Your task to perform on an android device: open app "Google Chat" Image 0: 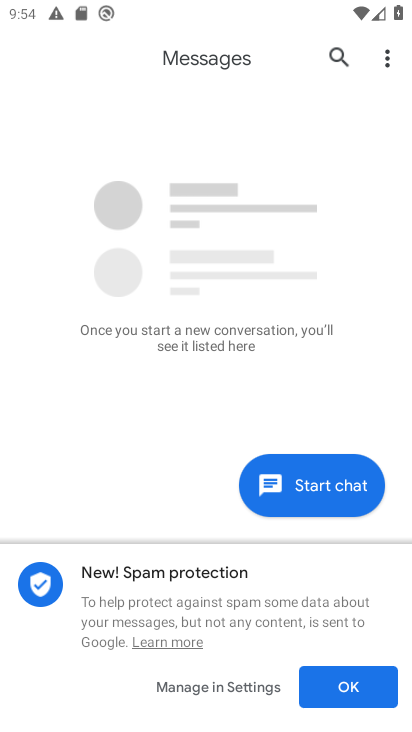
Step 0: press back button
Your task to perform on an android device: open app "Google Chat" Image 1: 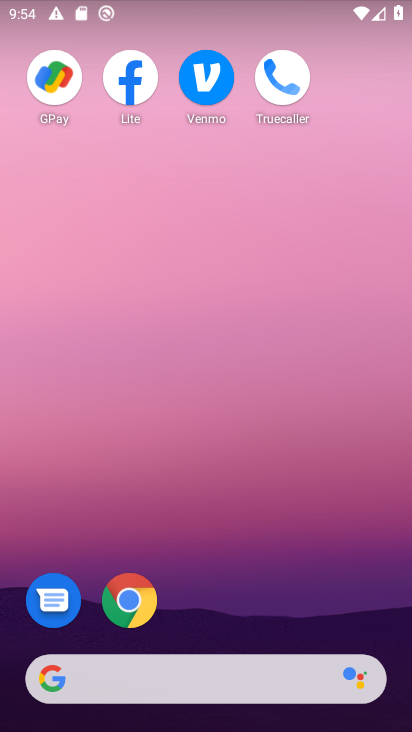
Step 1: drag from (236, 509) to (238, 135)
Your task to perform on an android device: open app "Google Chat" Image 2: 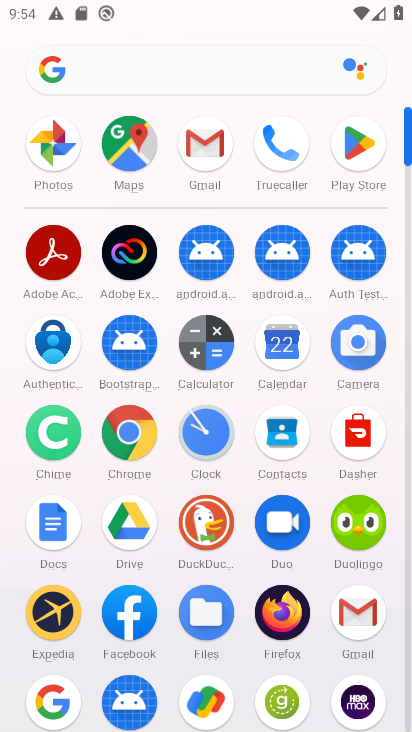
Step 2: click (369, 139)
Your task to perform on an android device: open app "Google Chat" Image 3: 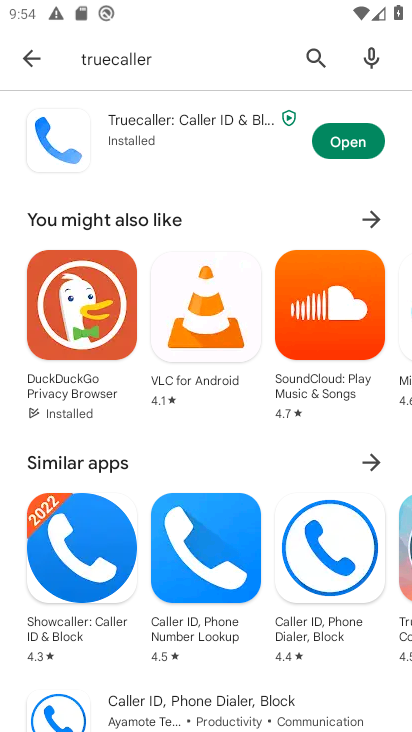
Step 3: click (320, 52)
Your task to perform on an android device: open app "Google Chat" Image 4: 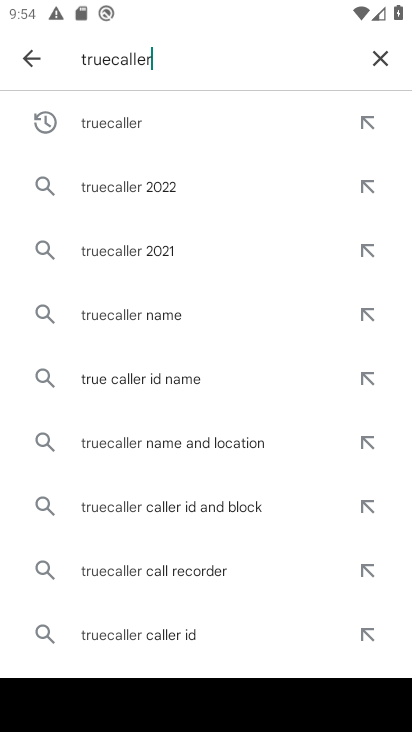
Step 4: click (368, 58)
Your task to perform on an android device: open app "Google Chat" Image 5: 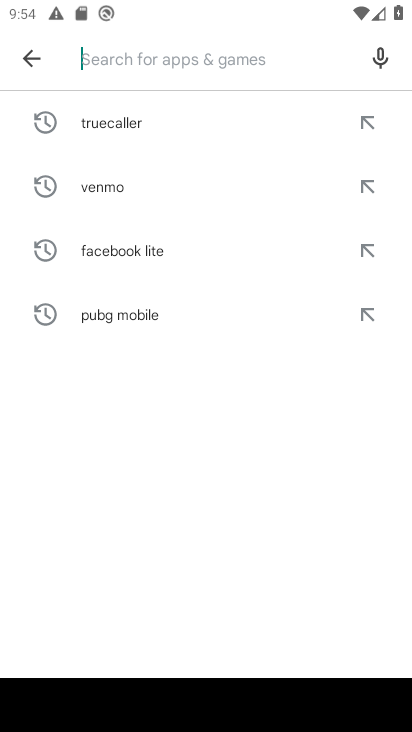
Step 5: type "Google Chat"
Your task to perform on an android device: open app "Google Chat" Image 6: 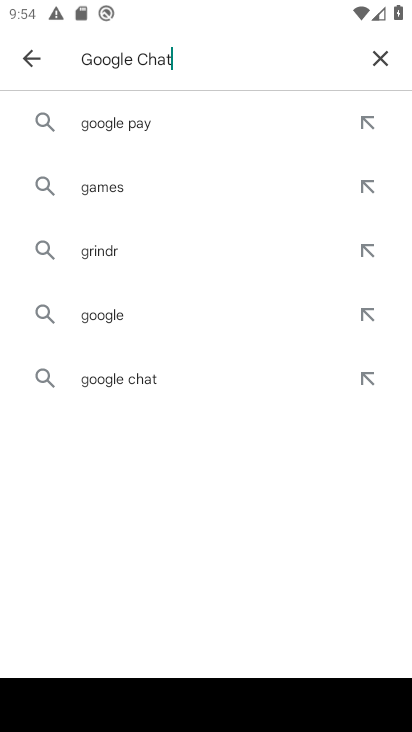
Step 6: type ""
Your task to perform on an android device: open app "Google Chat" Image 7: 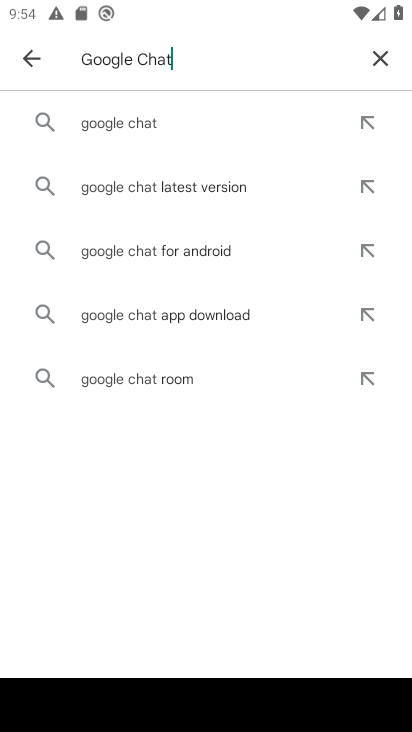
Step 7: click (163, 128)
Your task to perform on an android device: open app "Google Chat" Image 8: 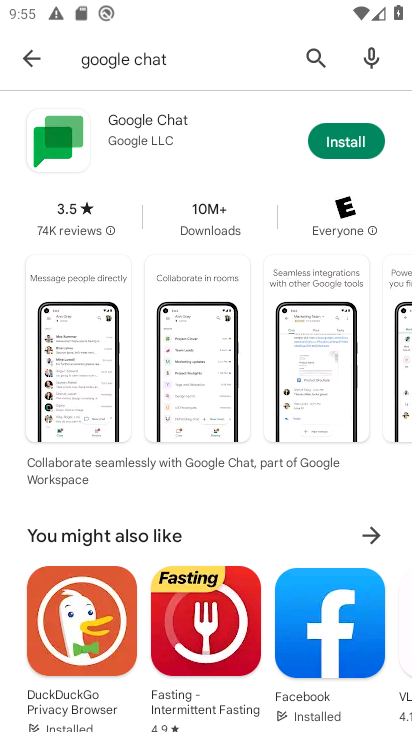
Step 8: task complete